Your task to perform on an android device: open app "Lyft - Rideshare, Bikes, Scooters & Transit" (install if not already installed) and enter user name: "deliberating@gmail.com" and password: "preyed" Image 0: 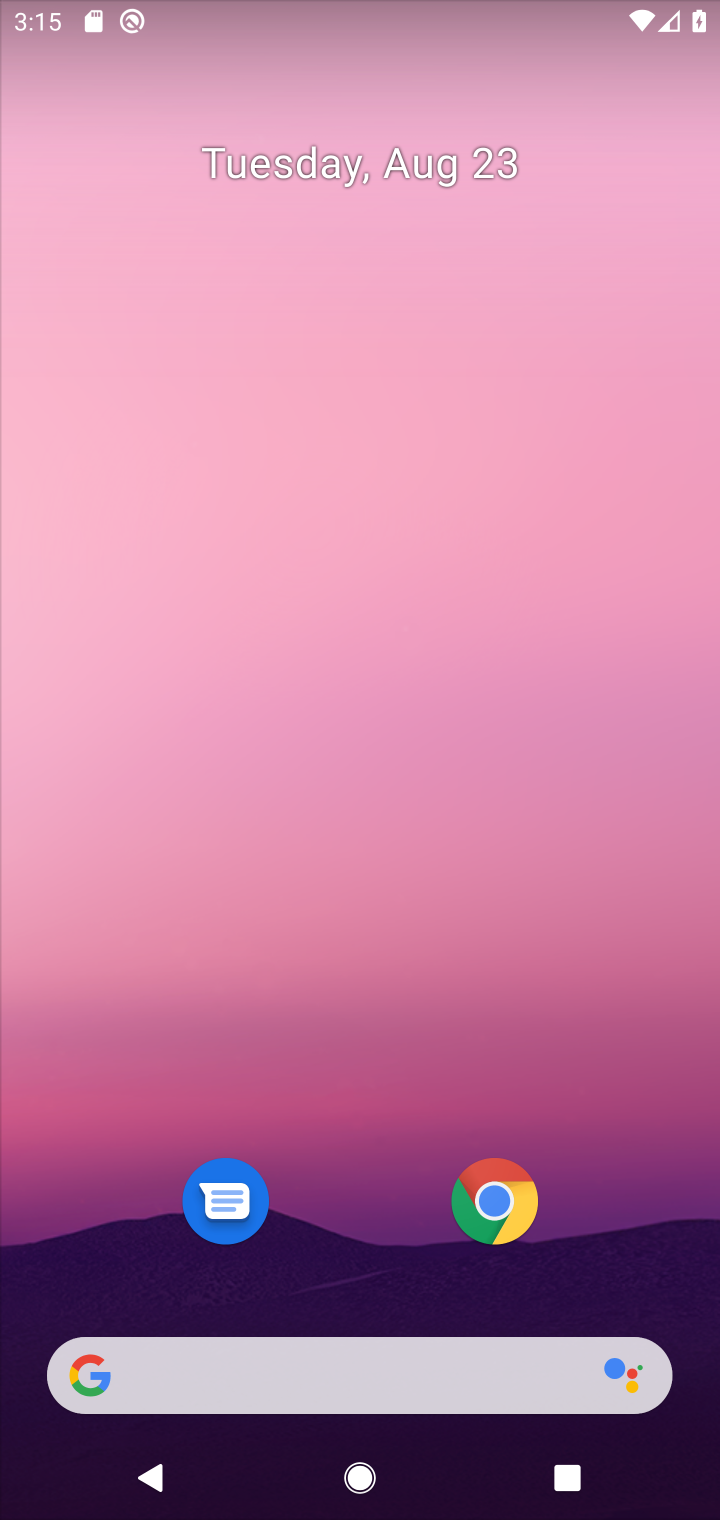
Step 0: drag from (658, 1162) to (563, 197)
Your task to perform on an android device: open app "Lyft - Rideshare, Bikes, Scooters & Transit" (install if not already installed) and enter user name: "deliberating@gmail.com" and password: "preyed" Image 1: 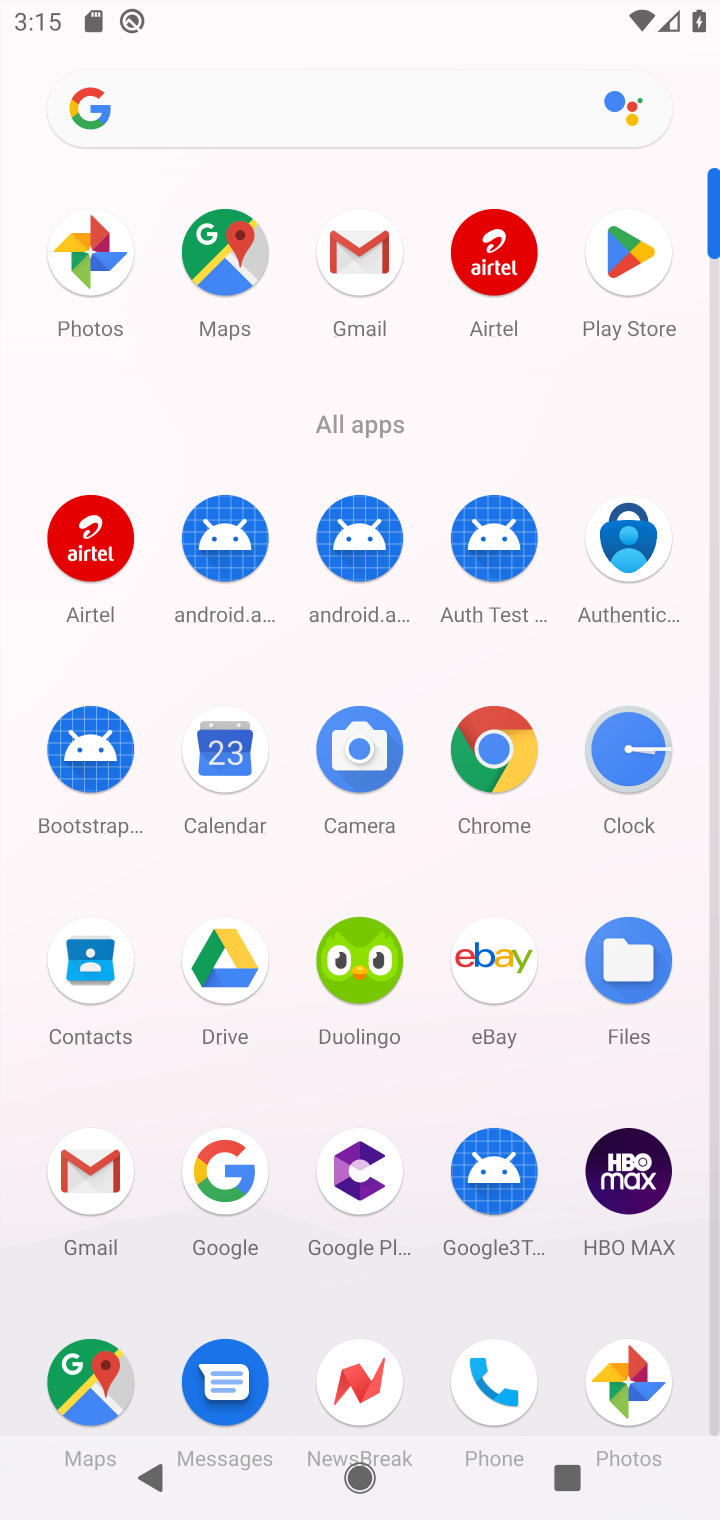
Step 1: click (716, 1366)
Your task to perform on an android device: open app "Lyft - Rideshare, Bikes, Scooters & Transit" (install if not already installed) and enter user name: "deliberating@gmail.com" and password: "preyed" Image 2: 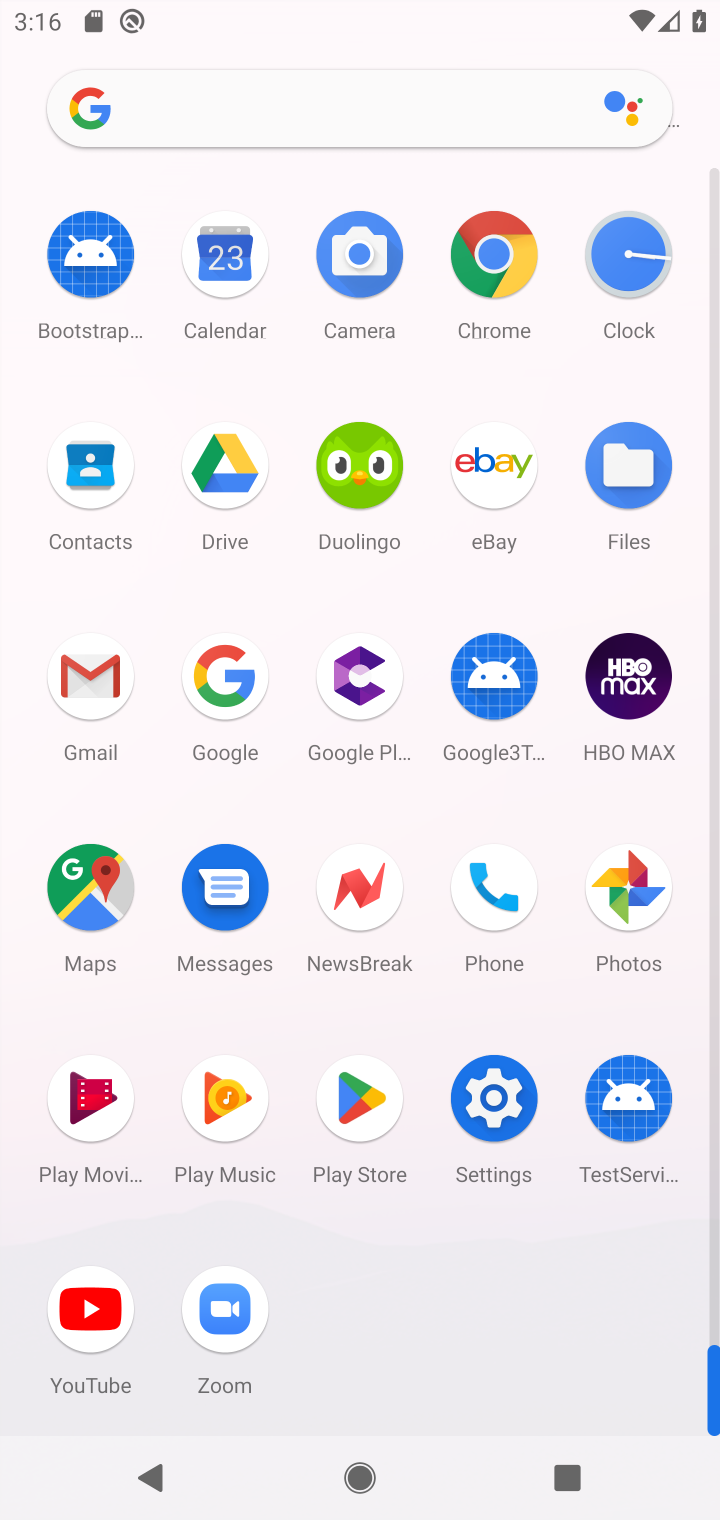
Step 2: click (365, 1095)
Your task to perform on an android device: open app "Lyft - Rideshare, Bikes, Scooters & Transit" (install if not already installed) and enter user name: "deliberating@gmail.com" and password: "preyed" Image 3: 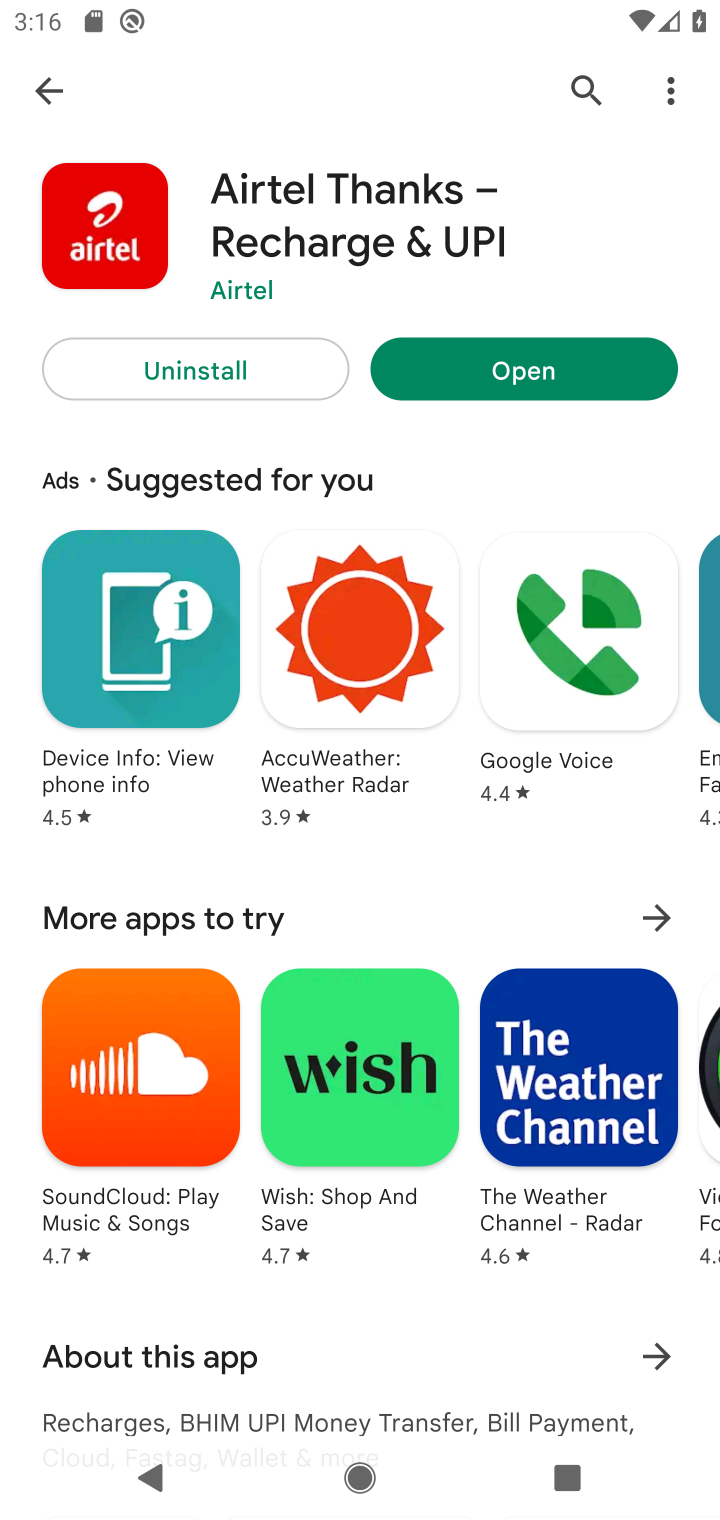
Step 3: click (579, 79)
Your task to perform on an android device: open app "Lyft - Rideshare, Bikes, Scooters & Transit" (install if not already installed) and enter user name: "deliberating@gmail.com" and password: "preyed" Image 4: 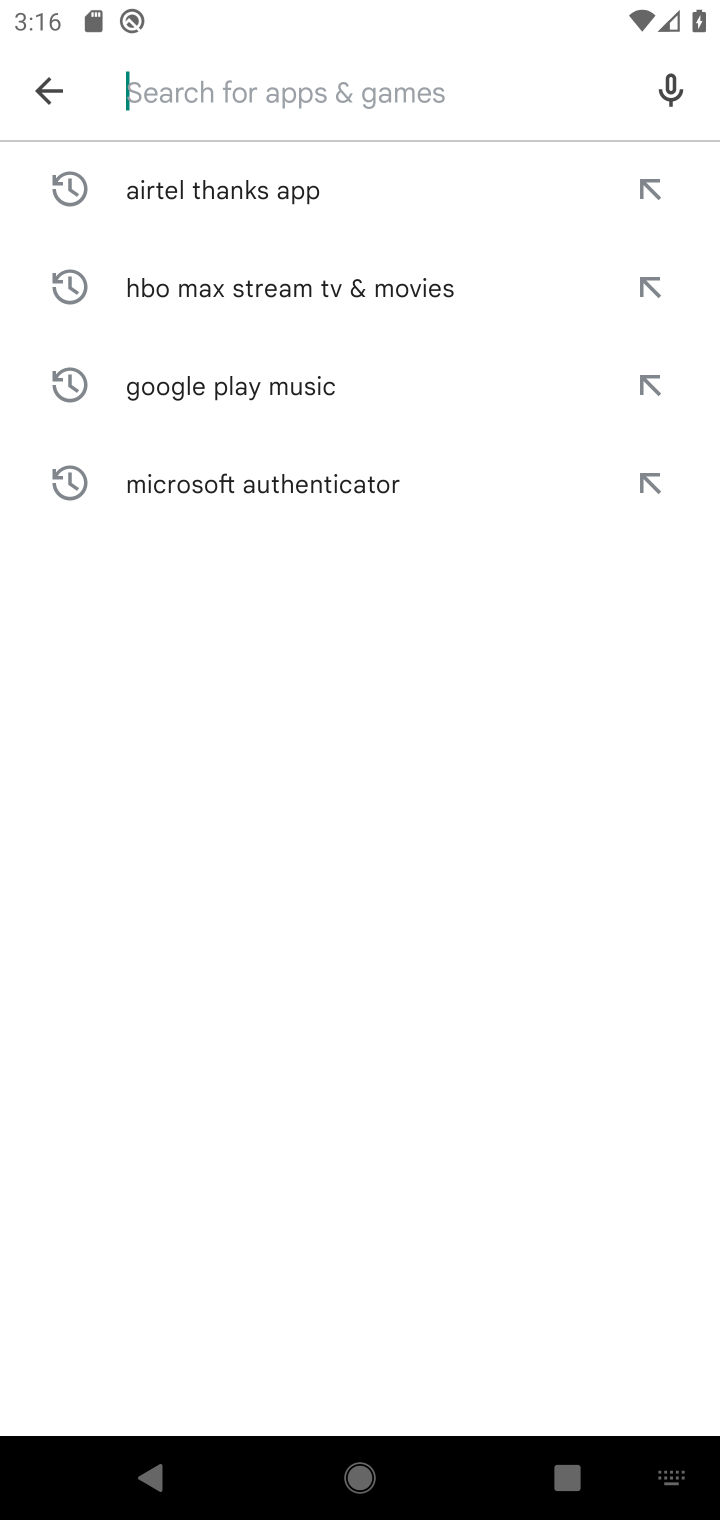
Step 4: type "Lyft - Rideshare, Bikes, Scooters & Transit"
Your task to perform on an android device: open app "Lyft - Rideshare, Bikes, Scooters & Transit" (install if not already installed) and enter user name: "deliberating@gmail.com" and password: "preyed" Image 5: 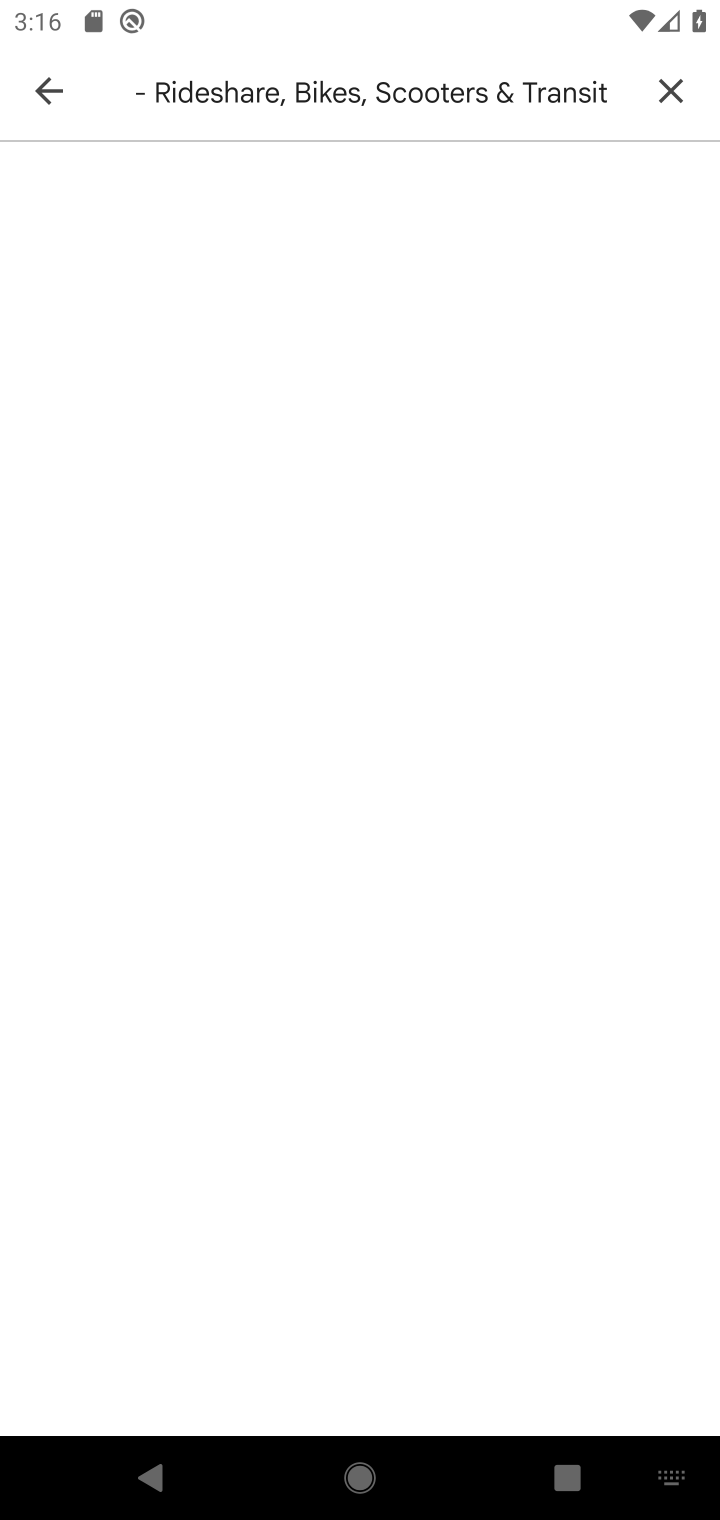
Step 5: task complete